Your task to perform on an android device: Go to wifi settings Image 0: 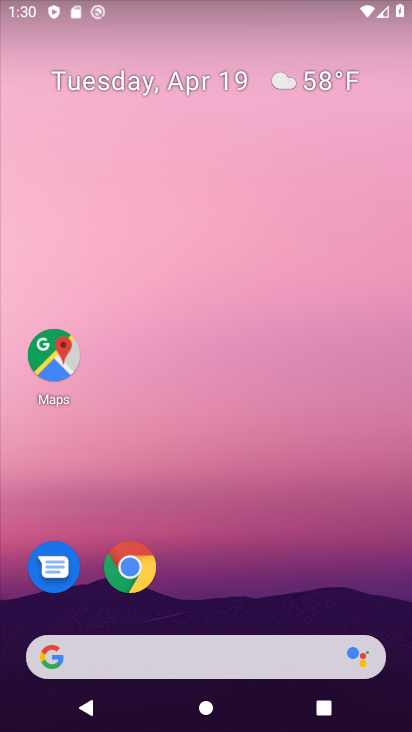
Step 0: drag from (399, 639) to (352, 111)
Your task to perform on an android device: Go to wifi settings Image 1: 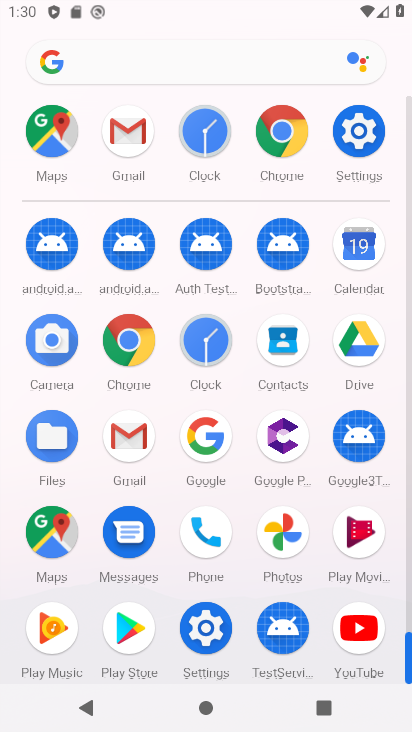
Step 1: click (203, 627)
Your task to perform on an android device: Go to wifi settings Image 2: 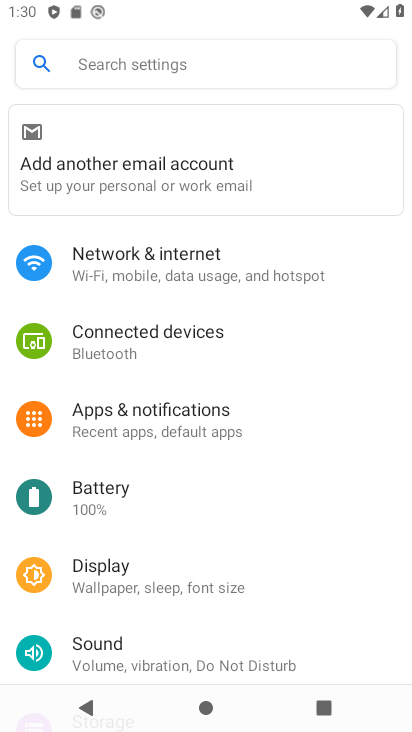
Step 2: click (121, 253)
Your task to perform on an android device: Go to wifi settings Image 3: 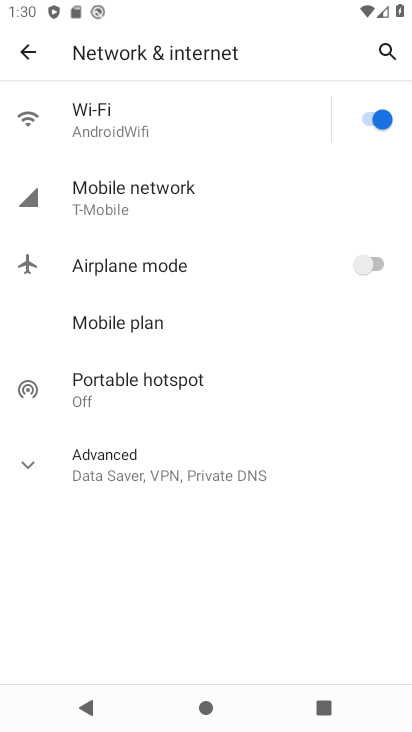
Step 3: click (91, 112)
Your task to perform on an android device: Go to wifi settings Image 4: 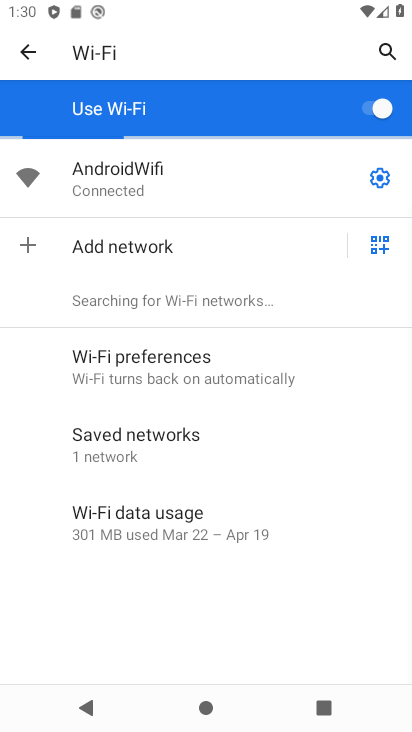
Step 4: click (378, 178)
Your task to perform on an android device: Go to wifi settings Image 5: 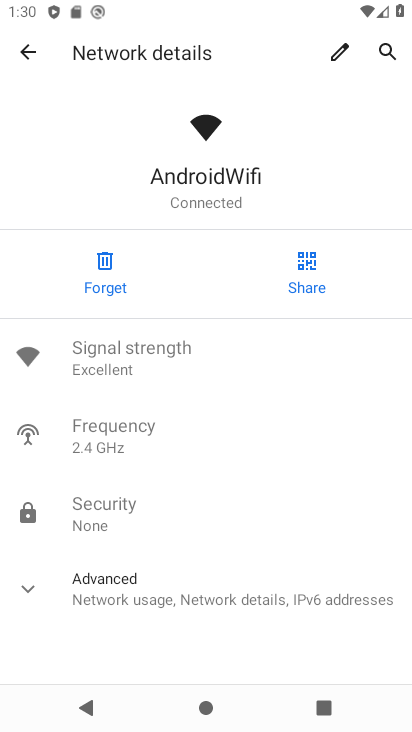
Step 5: click (31, 589)
Your task to perform on an android device: Go to wifi settings Image 6: 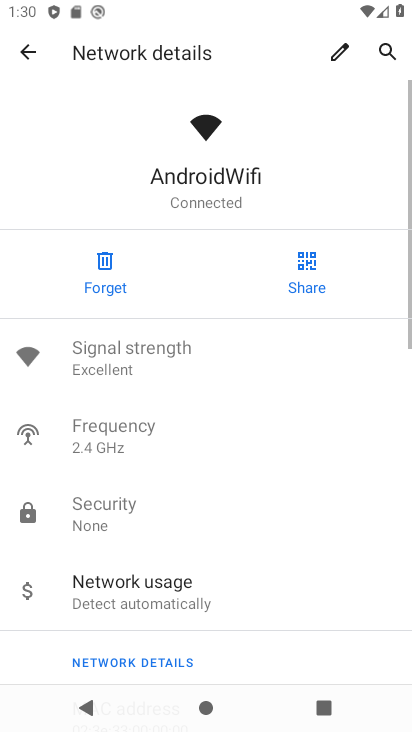
Step 6: task complete